Your task to perform on an android device: turn off location Image 0: 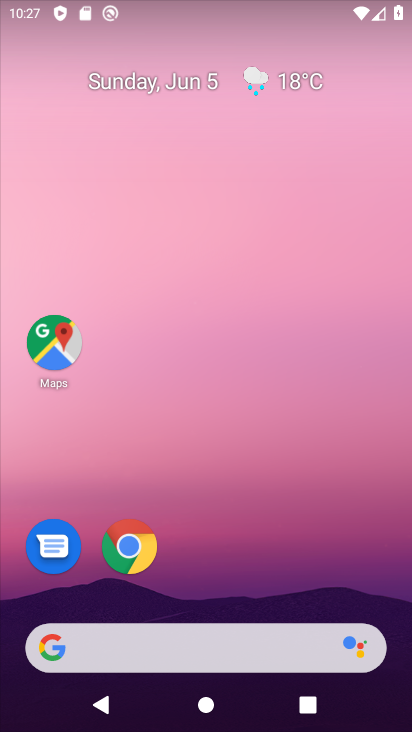
Step 0: drag from (153, 479) to (97, 109)
Your task to perform on an android device: turn off location Image 1: 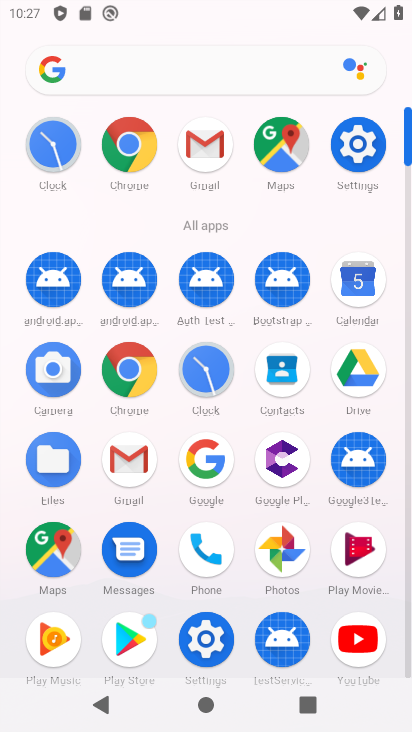
Step 1: click (366, 157)
Your task to perform on an android device: turn off location Image 2: 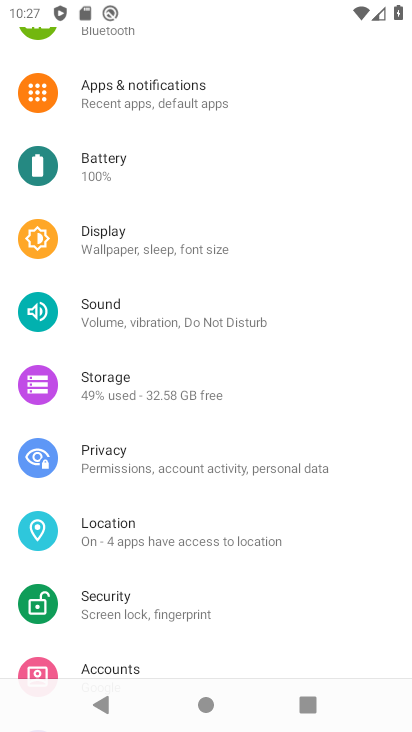
Step 2: click (222, 554)
Your task to perform on an android device: turn off location Image 3: 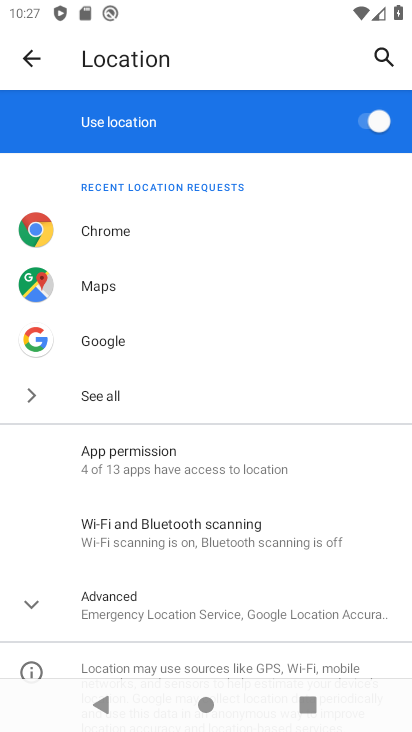
Step 3: click (380, 124)
Your task to perform on an android device: turn off location Image 4: 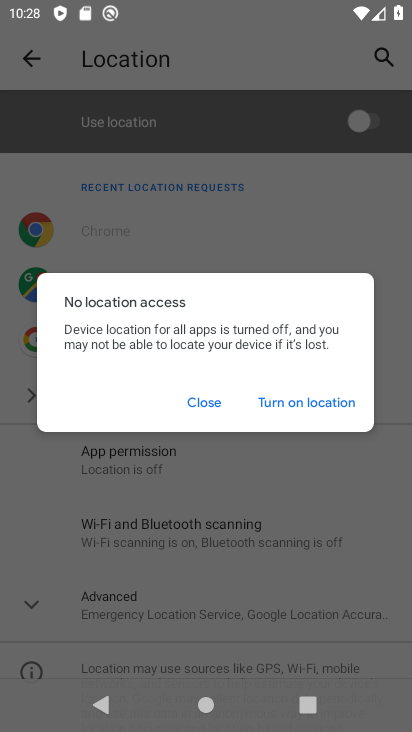
Step 4: click (214, 405)
Your task to perform on an android device: turn off location Image 5: 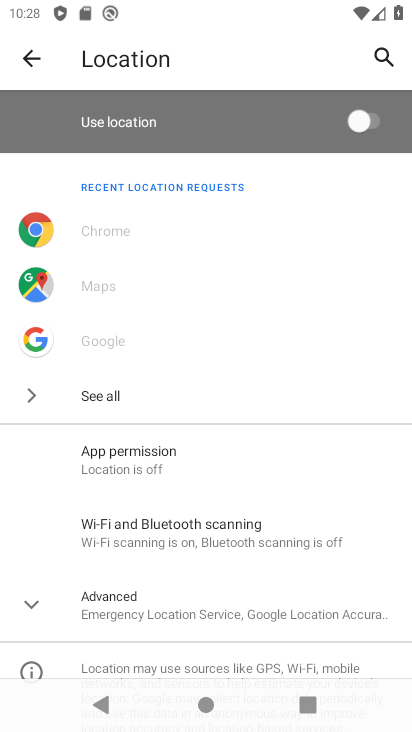
Step 5: task complete